Your task to perform on an android device: turn pop-ups off in chrome Image 0: 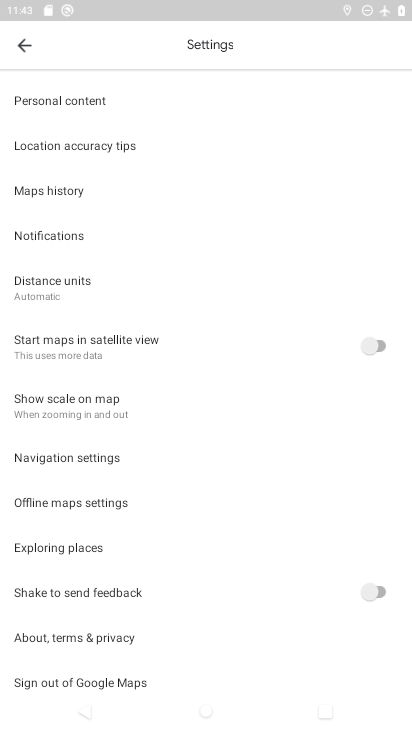
Step 0: drag from (227, 609) to (244, 331)
Your task to perform on an android device: turn pop-ups off in chrome Image 1: 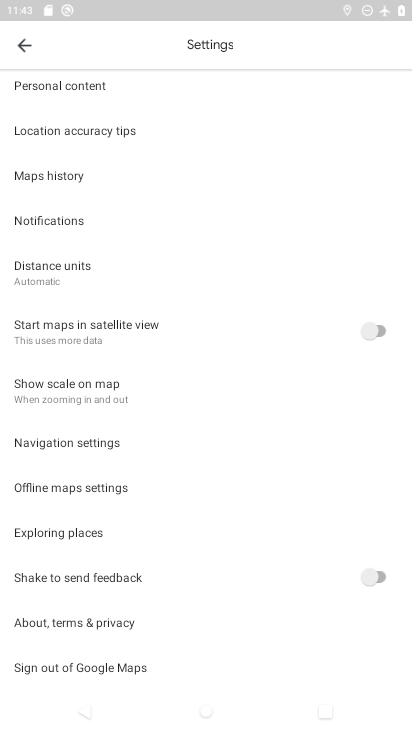
Step 1: click (30, 50)
Your task to perform on an android device: turn pop-ups off in chrome Image 2: 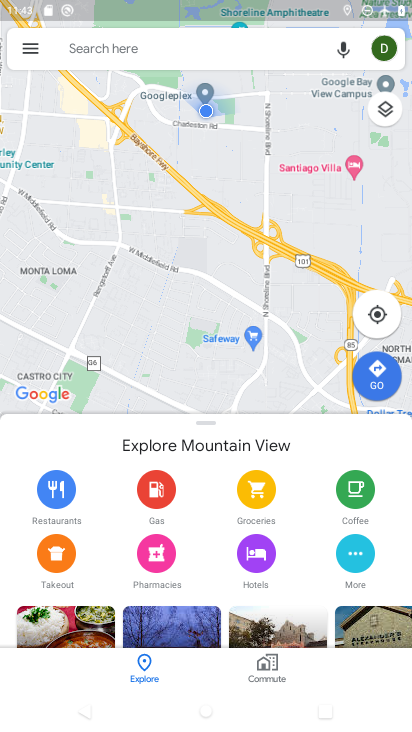
Step 2: press home button
Your task to perform on an android device: turn pop-ups off in chrome Image 3: 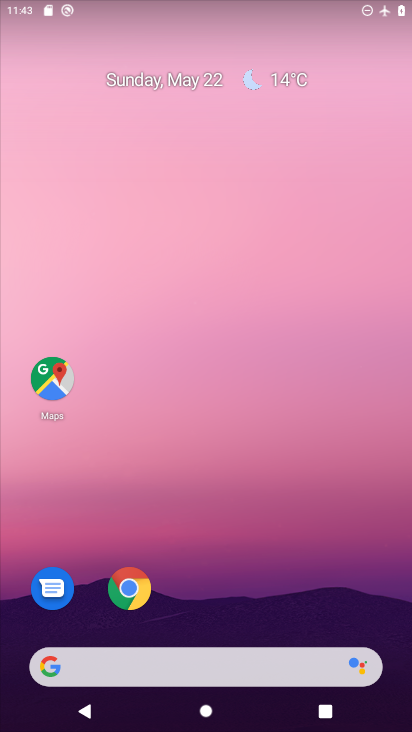
Step 3: click (127, 590)
Your task to perform on an android device: turn pop-ups off in chrome Image 4: 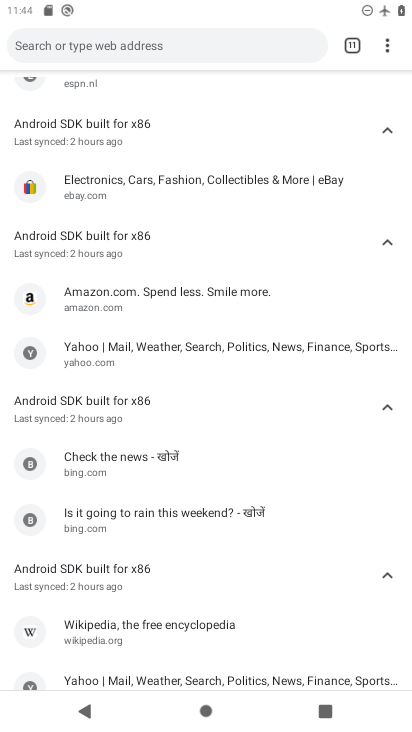
Step 4: click (392, 55)
Your task to perform on an android device: turn pop-ups off in chrome Image 5: 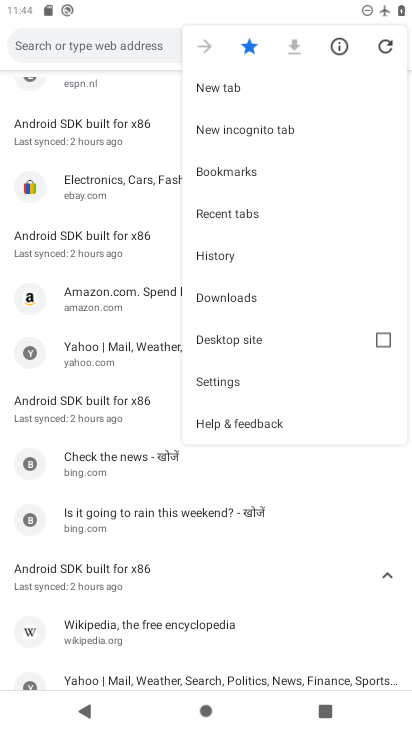
Step 5: click (263, 373)
Your task to perform on an android device: turn pop-ups off in chrome Image 6: 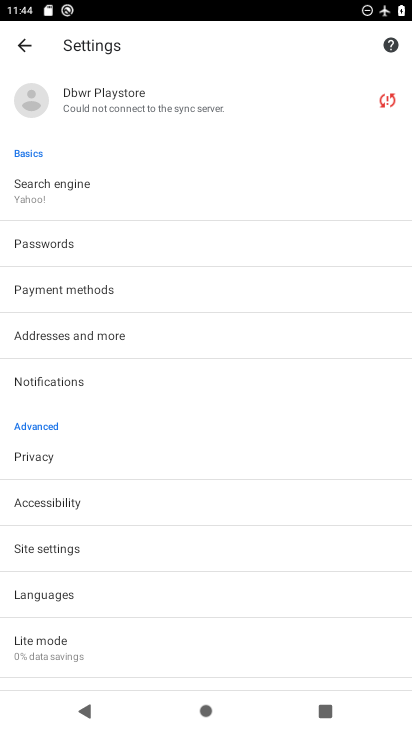
Step 6: click (51, 547)
Your task to perform on an android device: turn pop-ups off in chrome Image 7: 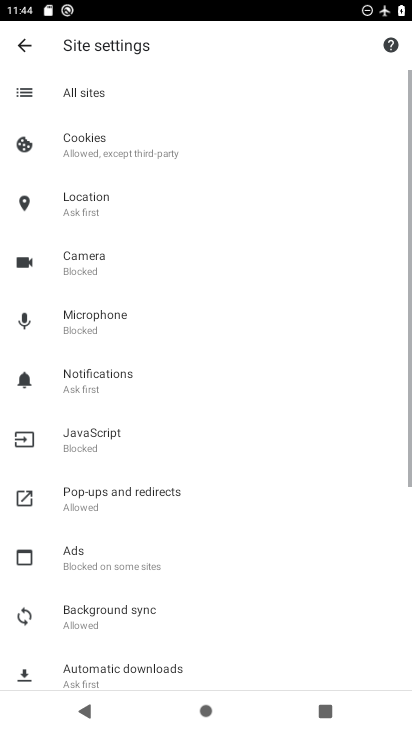
Step 7: click (146, 514)
Your task to perform on an android device: turn pop-ups off in chrome Image 8: 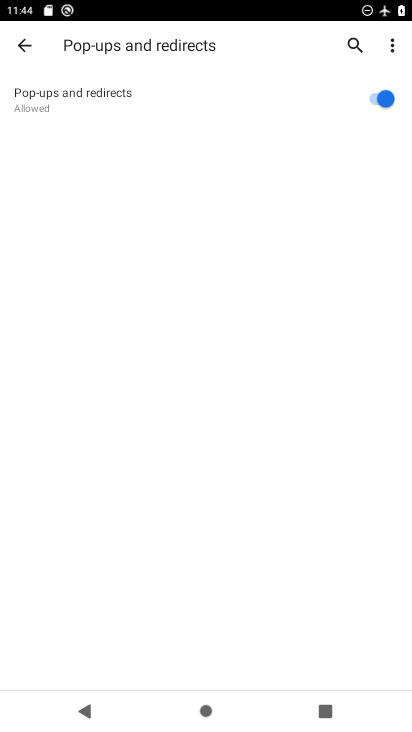
Step 8: click (377, 99)
Your task to perform on an android device: turn pop-ups off in chrome Image 9: 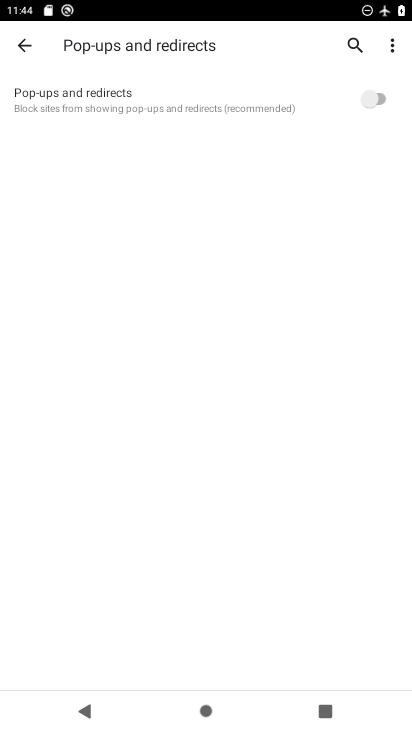
Step 9: task complete